Your task to perform on an android device: Open notification settings Image 0: 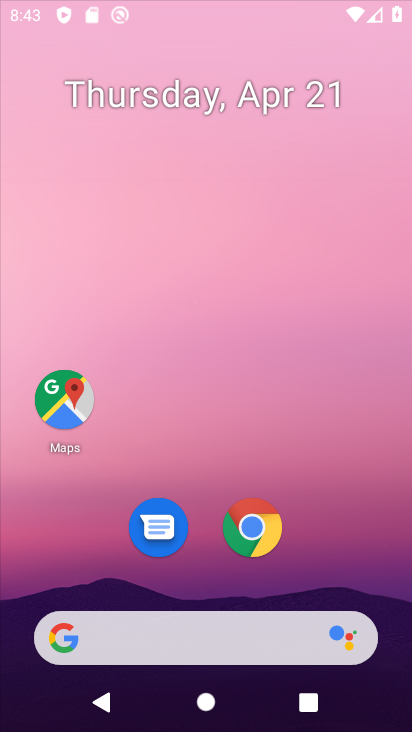
Step 0: click (273, 264)
Your task to perform on an android device: Open notification settings Image 1: 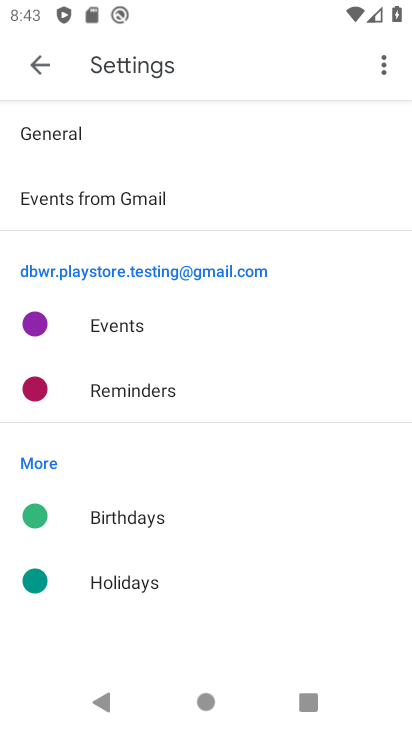
Step 1: press home button
Your task to perform on an android device: Open notification settings Image 2: 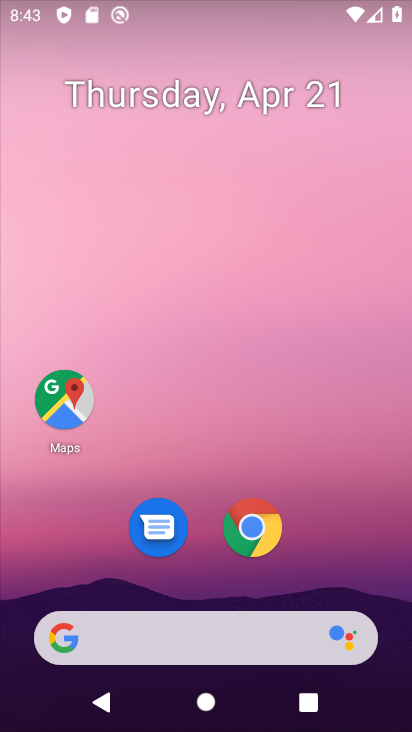
Step 2: drag from (297, 609) to (319, 165)
Your task to perform on an android device: Open notification settings Image 3: 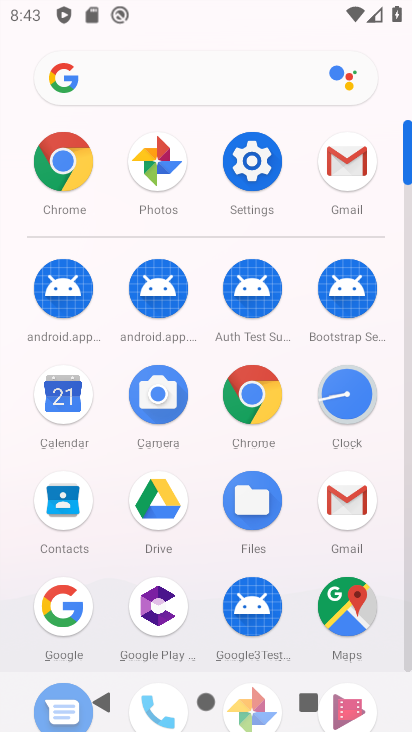
Step 3: click (250, 148)
Your task to perform on an android device: Open notification settings Image 4: 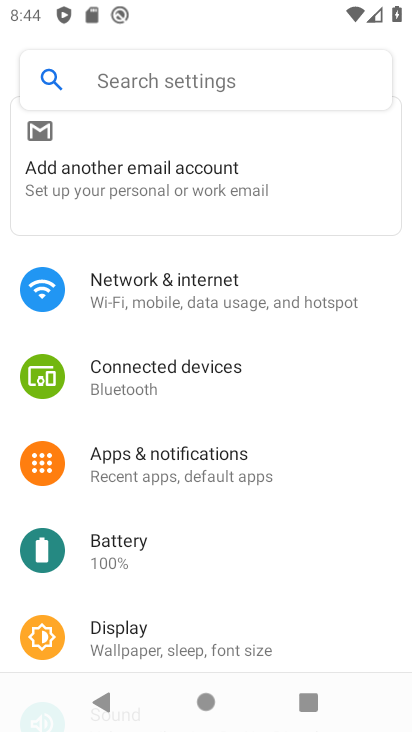
Step 4: click (232, 457)
Your task to perform on an android device: Open notification settings Image 5: 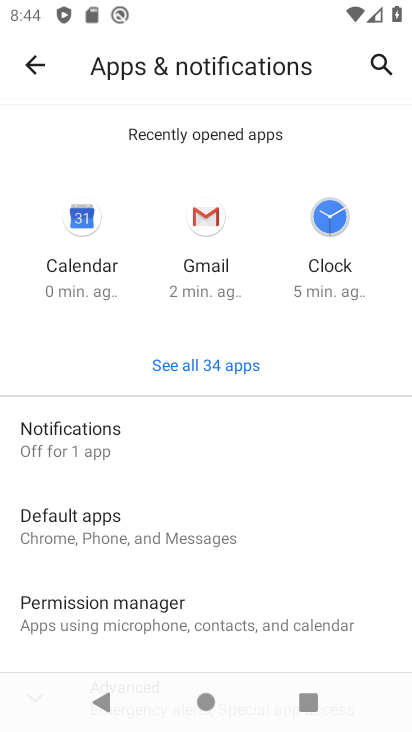
Step 5: drag from (230, 514) to (179, 322)
Your task to perform on an android device: Open notification settings Image 6: 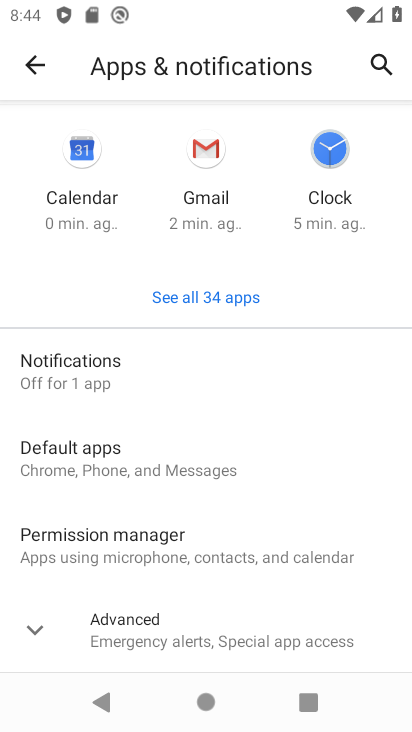
Step 6: click (184, 373)
Your task to perform on an android device: Open notification settings Image 7: 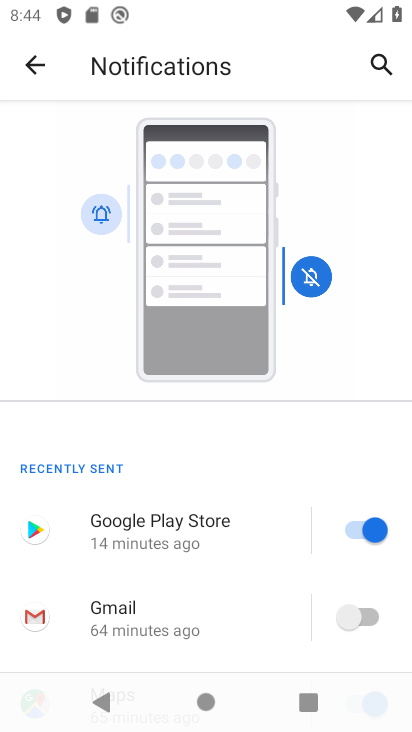
Step 7: task complete